Your task to perform on an android device: Go to network settings Image 0: 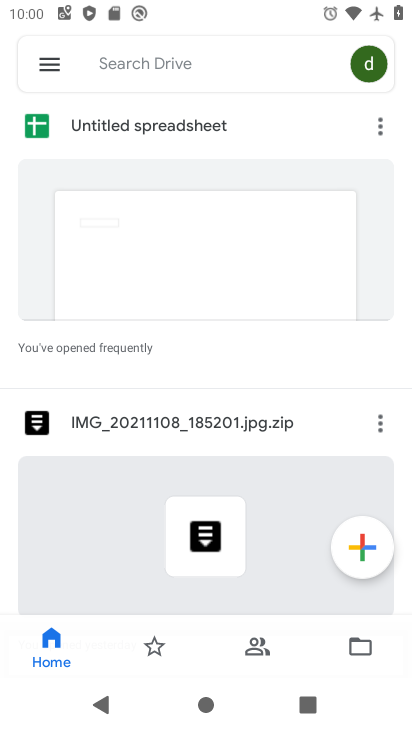
Step 0: press home button
Your task to perform on an android device: Go to network settings Image 1: 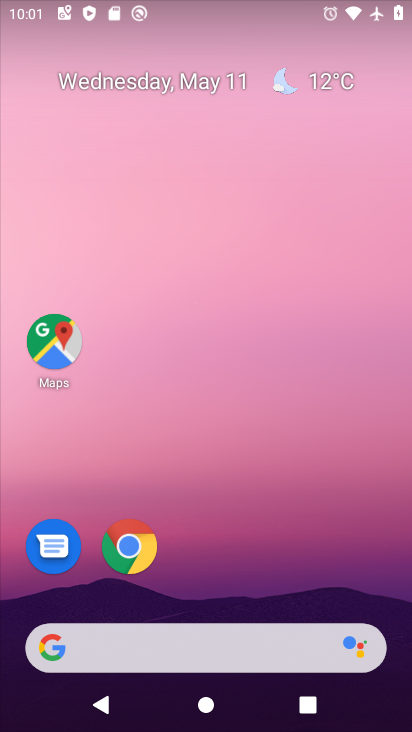
Step 1: drag from (402, 642) to (315, 292)
Your task to perform on an android device: Go to network settings Image 2: 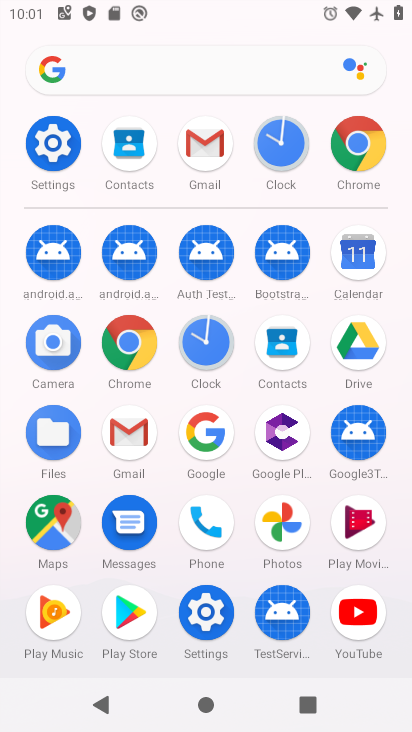
Step 2: click (208, 613)
Your task to perform on an android device: Go to network settings Image 3: 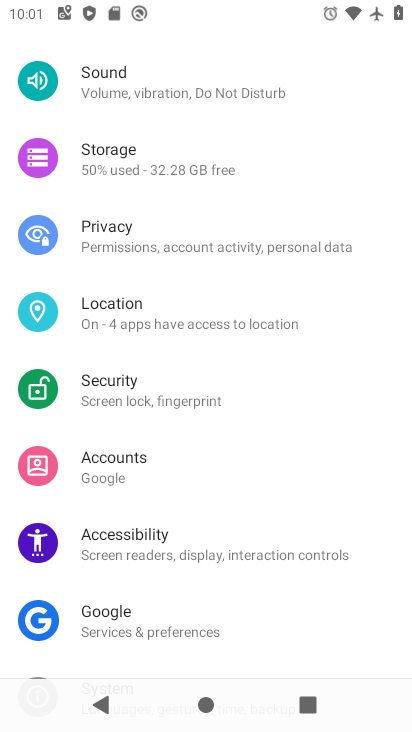
Step 3: drag from (342, 158) to (344, 526)
Your task to perform on an android device: Go to network settings Image 4: 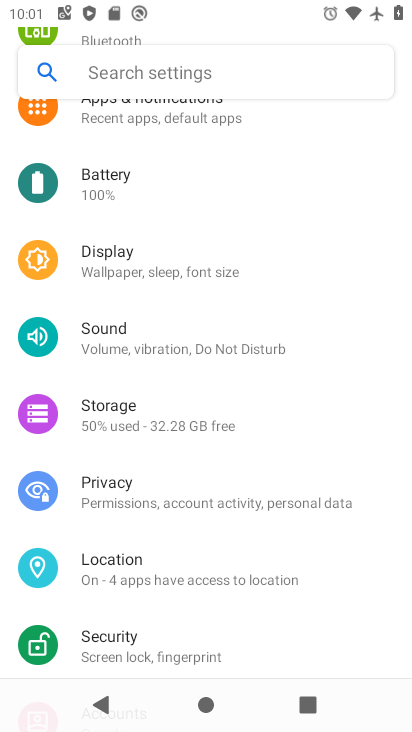
Step 4: drag from (328, 172) to (356, 483)
Your task to perform on an android device: Go to network settings Image 5: 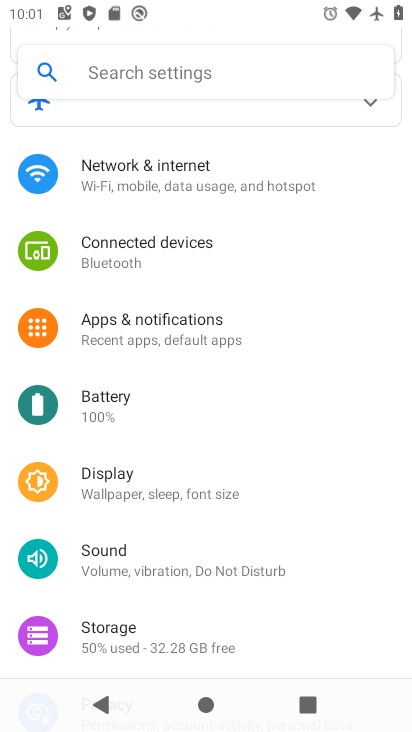
Step 5: click (124, 169)
Your task to perform on an android device: Go to network settings Image 6: 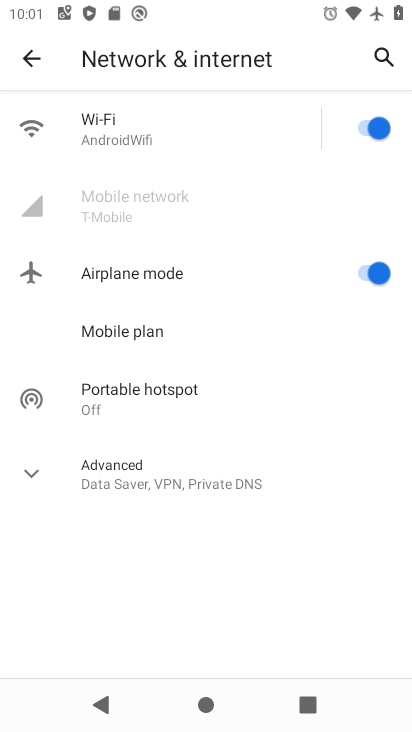
Step 6: click (21, 478)
Your task to perform on an android device: Go to network settings Image 7: 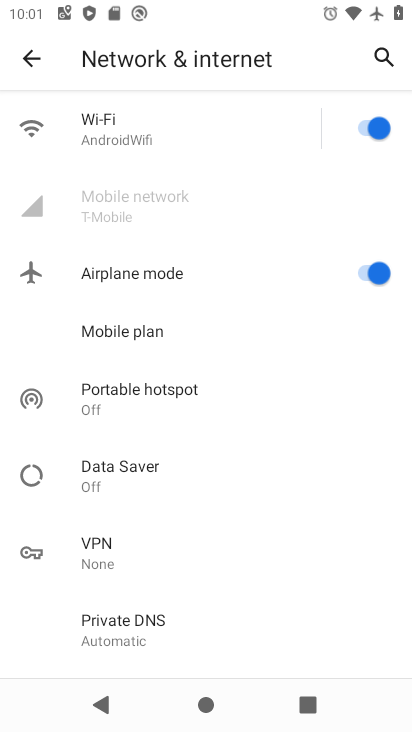
Step 7: task complete